Your task to perform on an android device: open a bookmark in the chrome app Image 0: 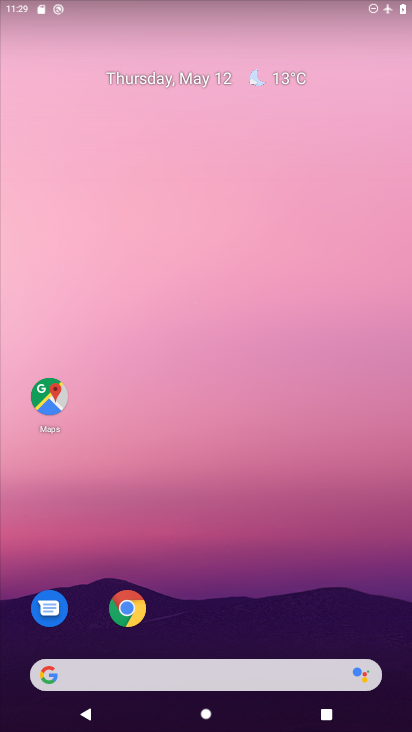
Step 0: click (132, 609)
Your task to perform on an android device: open a bookmark in the chrome app Image 1: 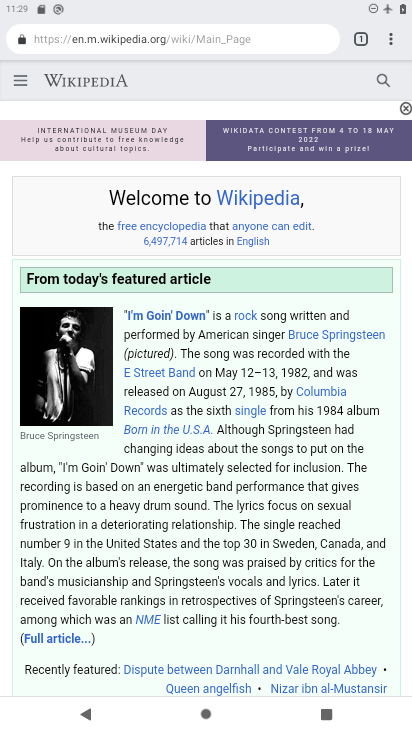
Step 1: click (381, 40)
Your task to perform on an android device: open a bookmark in the chrome app Image 2: 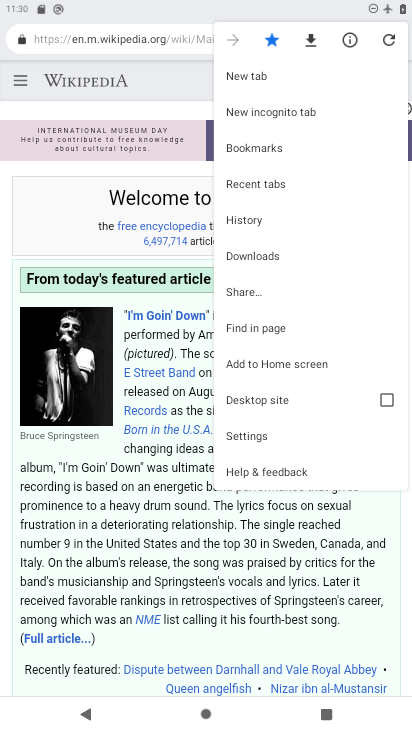
Step 2: click (272, 148)
Your task to perform on an android device: open a bookmark in the chrome app Image 3: 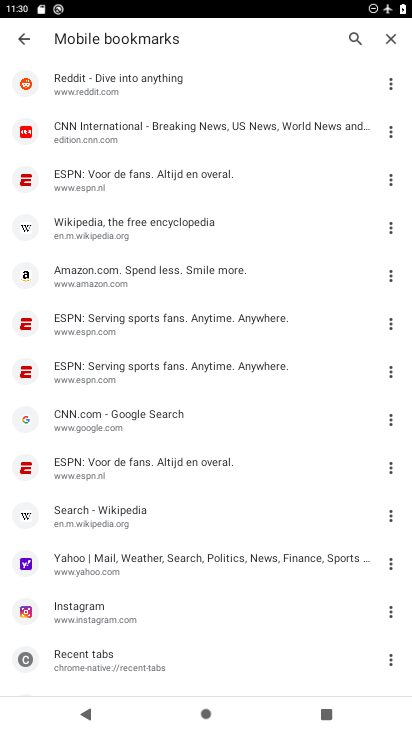
Step 3: click (148, 277)
Your task to perform on an android device: open a bookmark in the chrome app Image 4: 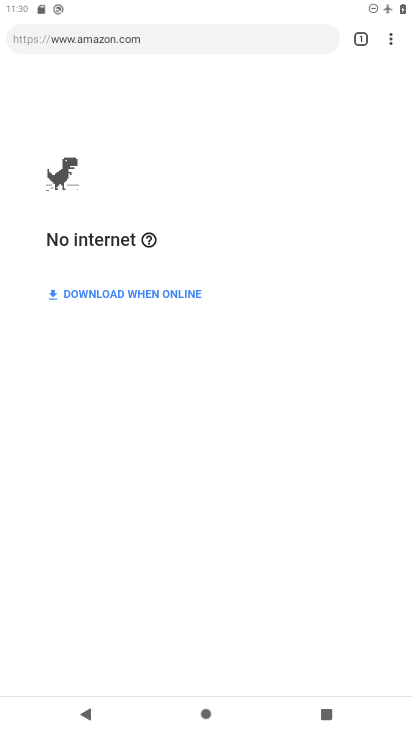
Step 4: task complete